Your task to perform on an android device: delete a single message in the gmail app Image 0: 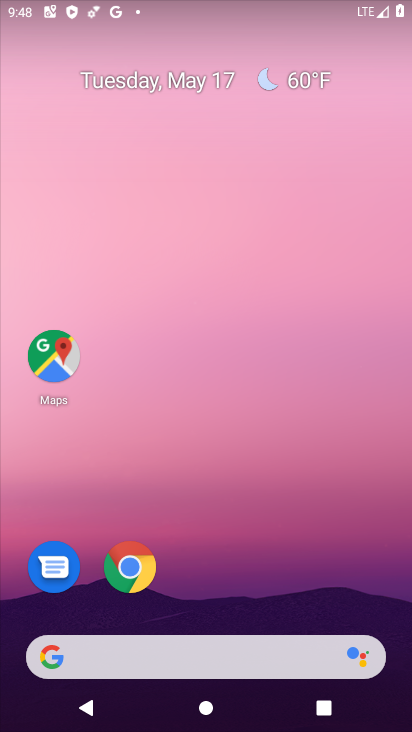
Step 0: drag from (362, 606) to (289, 83)
Your task to perform on an android device: delete a single message in the gmail app Image 1: 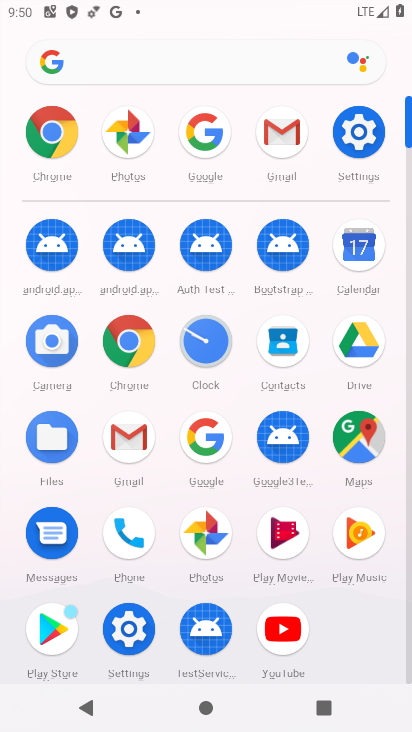
Step 1: click (135, 442)
Your task to perform on an android device: delete a single message in the gmail app Image 2: 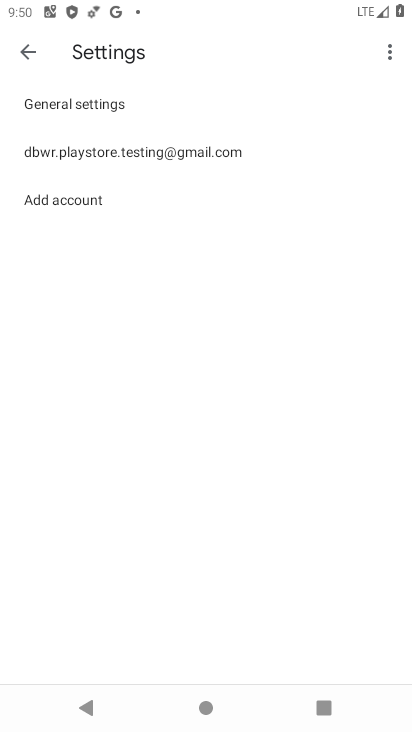
Step 2: task complete